Your task to perform on an android device: turn smart compose on in the gmail app Image 0: 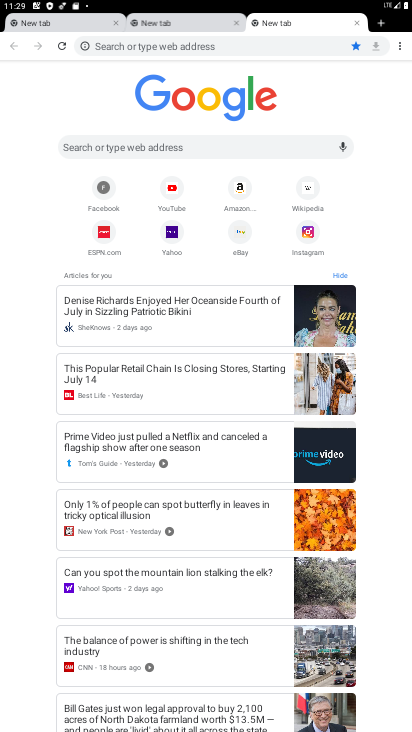
Step 0: press home button
Your task to perform on an android device: turn smart compose on in the gmail app Image 1: 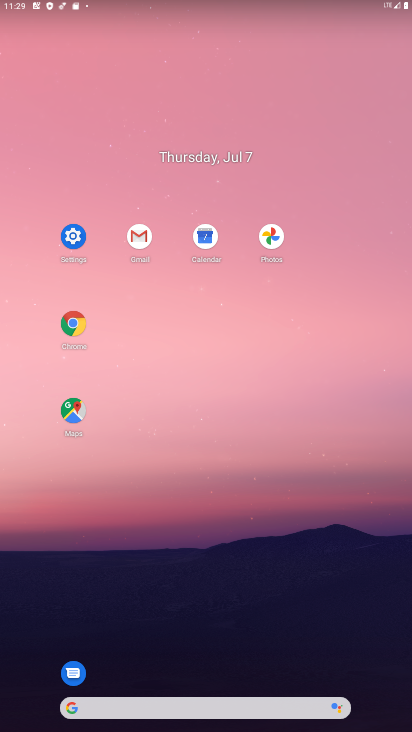
Step 1: click (142, 234)
Your task to perform on an android device: turn smart compose on in the gmail app Image 2: 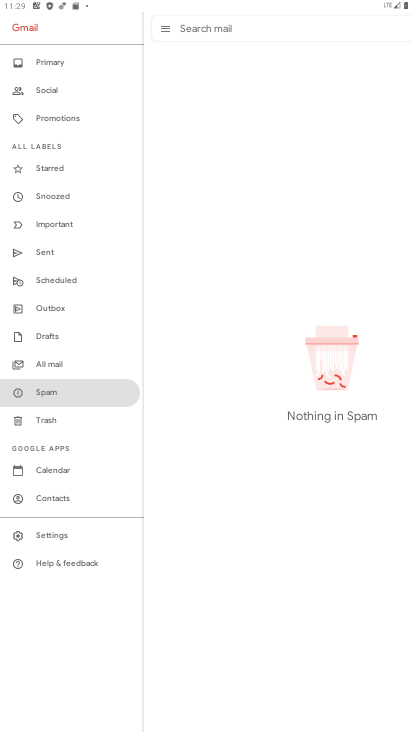
Step 2: click (62, 528)
Your task to perform on an android device: turn smart compose on in the gmail app Image 3: 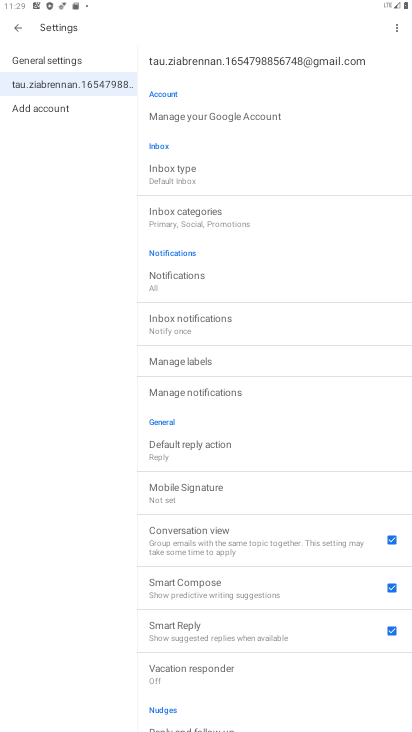
Step 3: task complete